Your task to perform on an android device: Open ESPN.com Image 0: 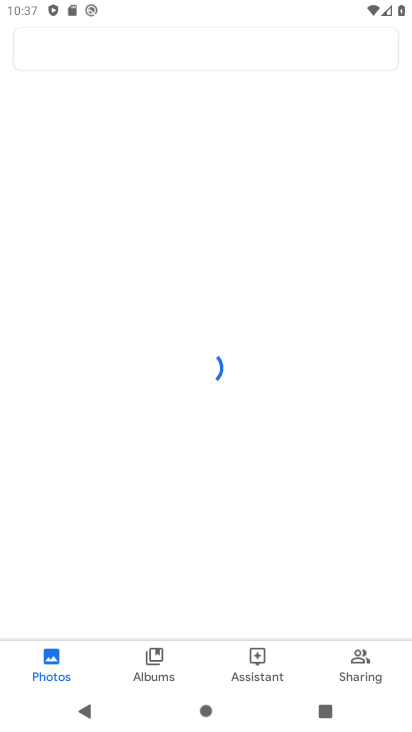
Step 0: press home button
Your task to perform on an android device: Open ESPN.com Image 1: 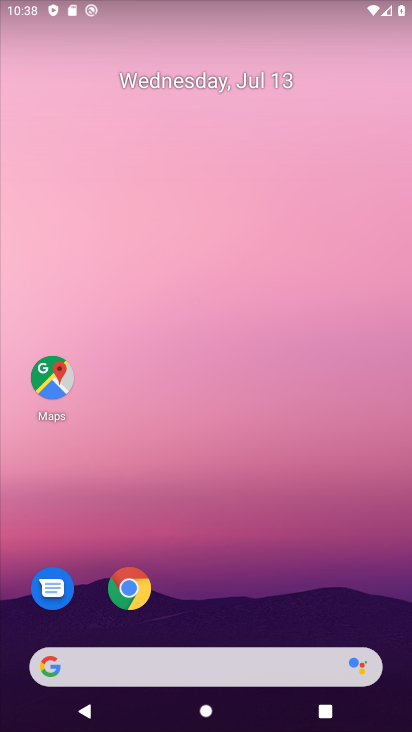
Step 1: click (133, 577)
Your task to perform on an android device: Open ESPN.com Image 2: 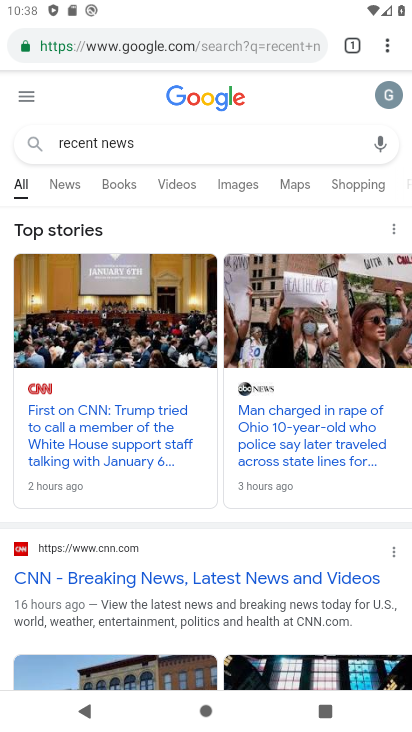
Step 2: click (346, 47)
Your task to perform on an android device: Open ESPN.com Image 3: 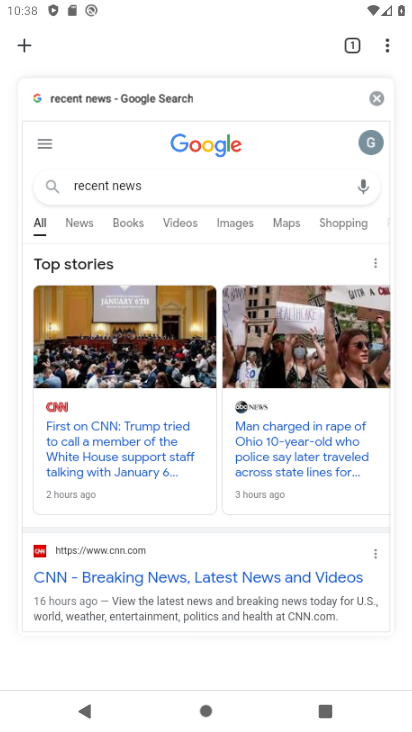
Step 3: click (24, 39)
Your task to perform on an android device: Open ESPN.com Image 4: 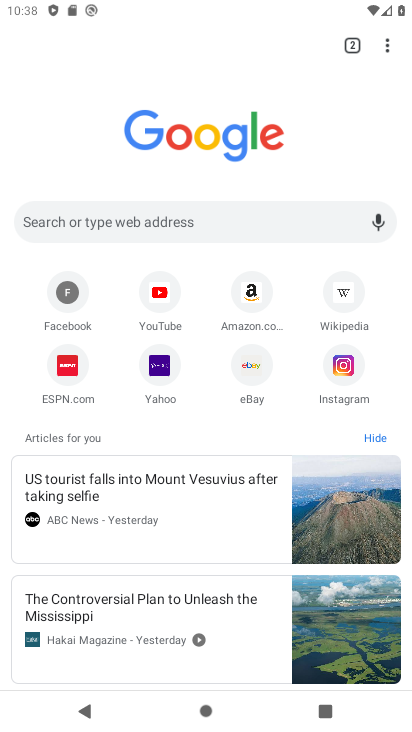
Step 4: click (73, 374)
Your task to perform on an android device: Open ESPN.com Image 5: 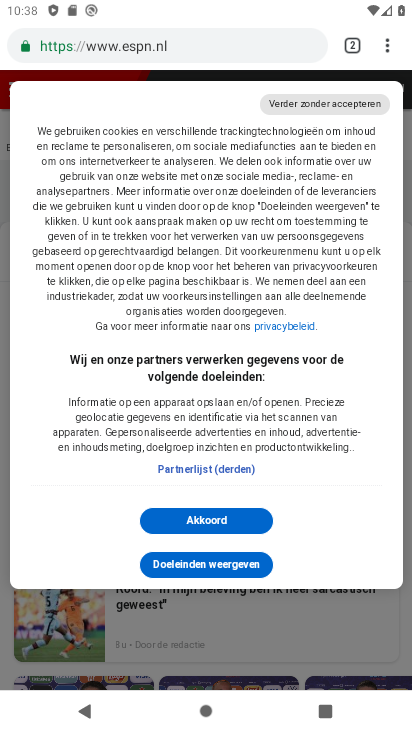
Step 5: task complete